Your task to perform on an android device: Open the stopwatch Image 0: 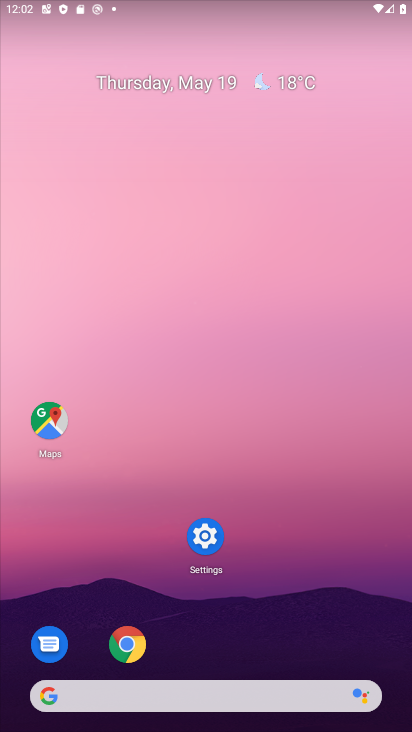
Step 0: drag from (261, 616) to (313, 155)
Your task to perform on an android device: Open the stopwatch Image 1: 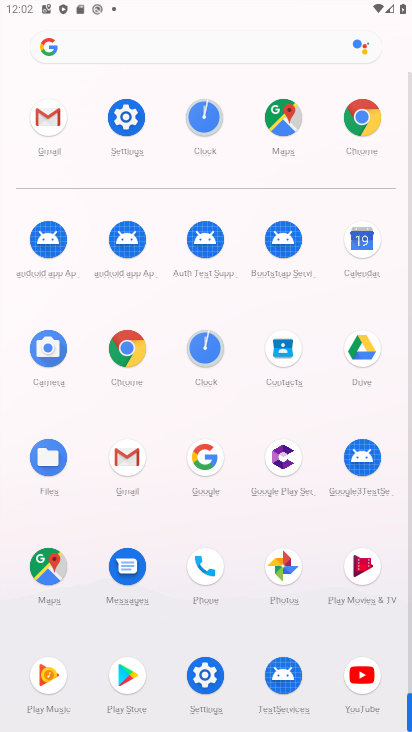
Step 1: click (209, 127)
Your task to perform on an android device: Open the stopwatch Image 2: 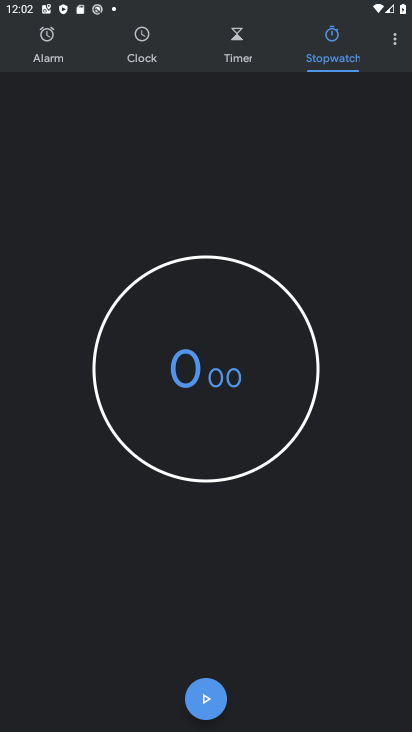
Step 2: task complete